Your task to perform on an android device: check android version Image 0: 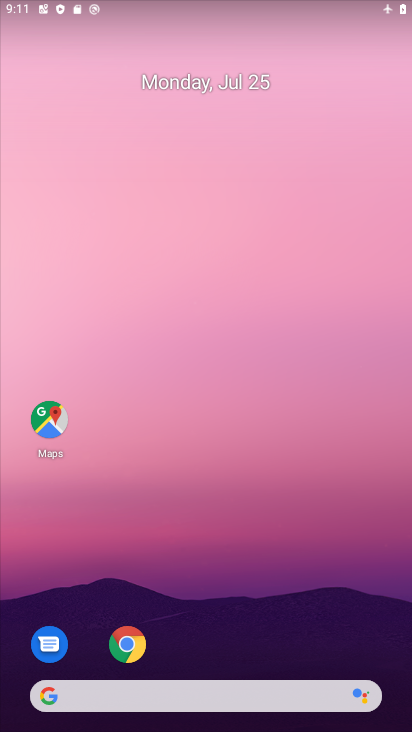
Step 0: drag from (278, 609) to (292, 193)
Your task to perform on an android device: check android version Image 1: 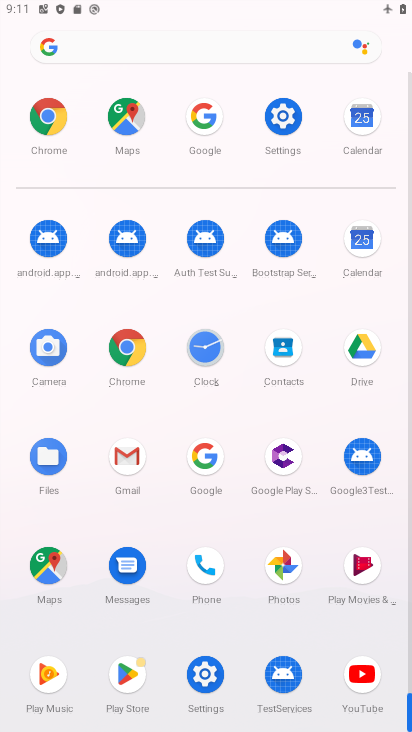
Step 1: click (199, 677)
Your task to perform on an android device: check android version Image 2: 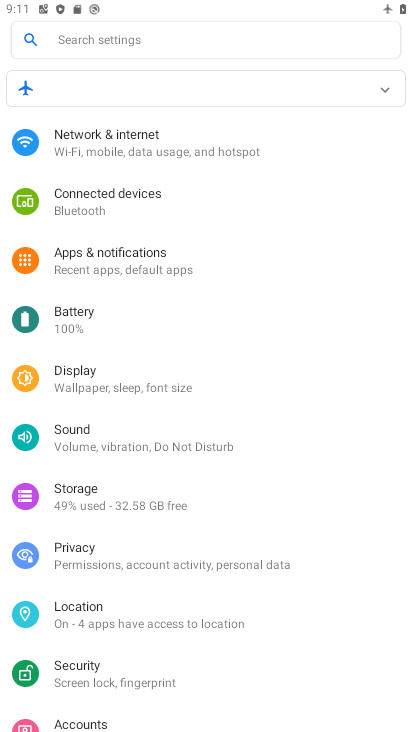
Step 2: drag from (169, 649) to (201, 141)
Your task to perform on an android device: check android version Image 3: 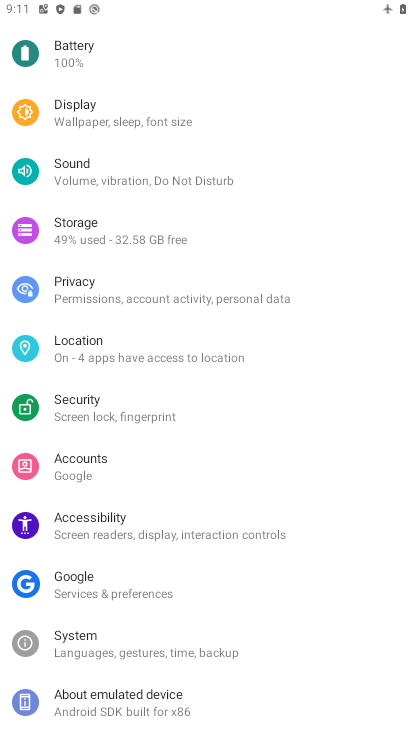
Step 3: click (154, 706)
Your task to perform on an android device: check android version Image 4: 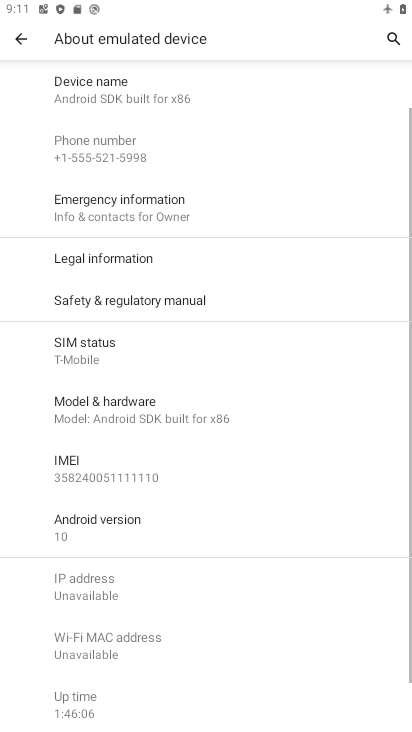
Step 4: click (151, 515)
Your task to perform on an android device: check android version Image 5: 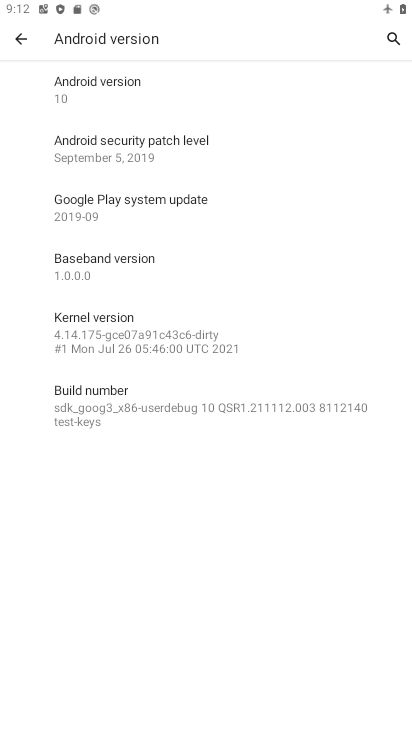
Step 5: task complete